Your task to perform on an android device: Open the Play Movies app and select the watchlist tab. Image 0: 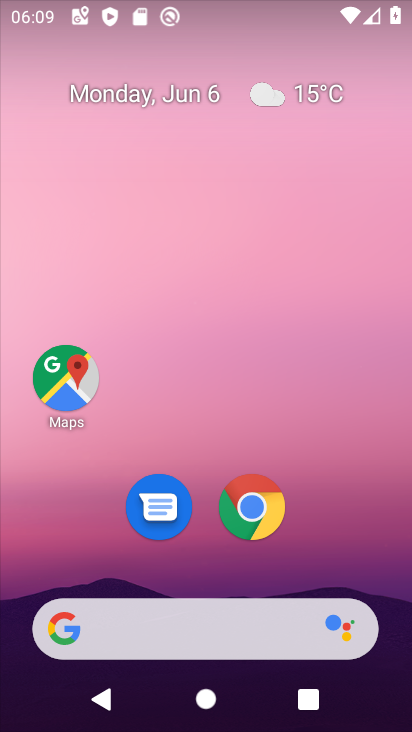
Step 0: drag from (228, 576) to (295, 9)
Your task to perform on an android device: Open the Play Movies app and select the watchlist tab. Image 1: 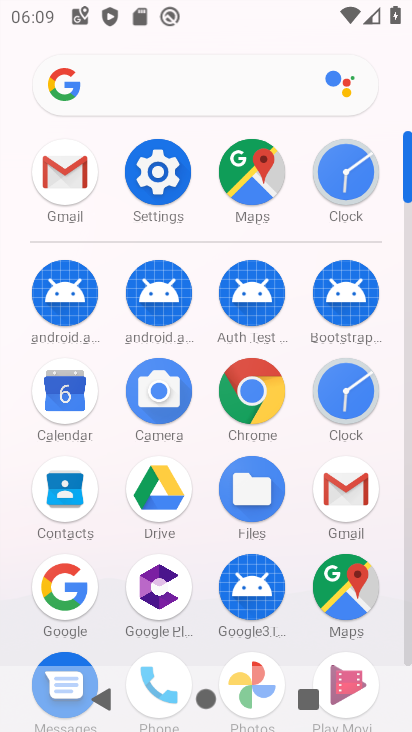
Step 1: drag from (292, 593) to (378, 35)
Your task to perform on an android device: Open the Play Movies app and select the watchlist tab. Image 2: 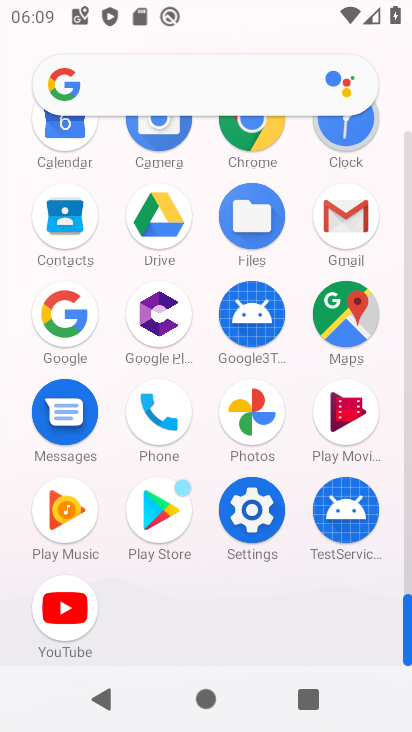
Step 2: click (357, 426)
Your task to perform on an android device: Open the Play Movies app and select the watchlist tab. Image 3: 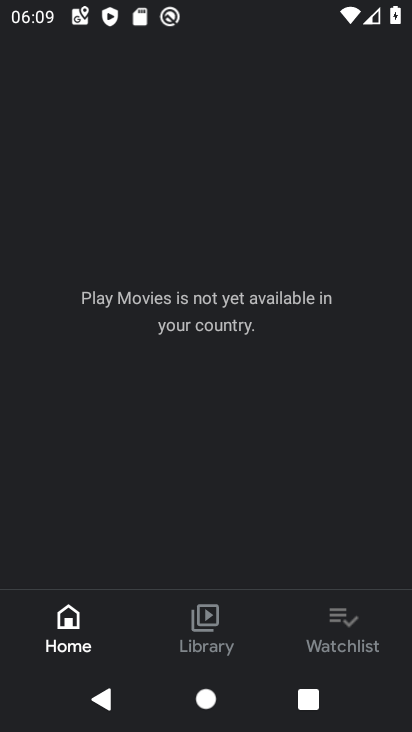
Step 3: click (331, 641)
Your task to perform on an android device: Open the Play Movies app and select the watchlist tab. Image 4: 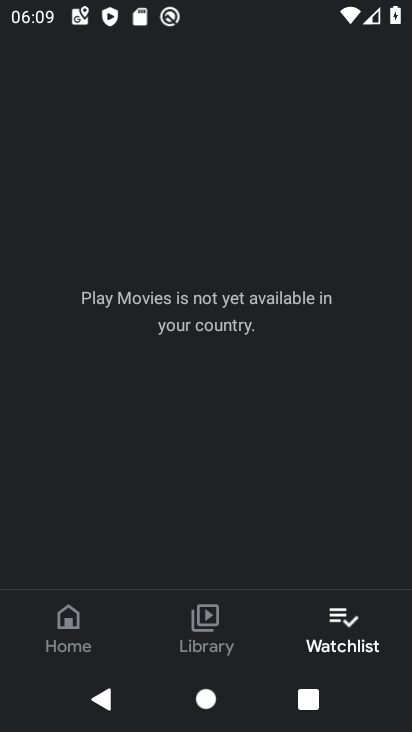
Step 4: task complete